Your task to perform on an android device: Go to Maps Image 0: 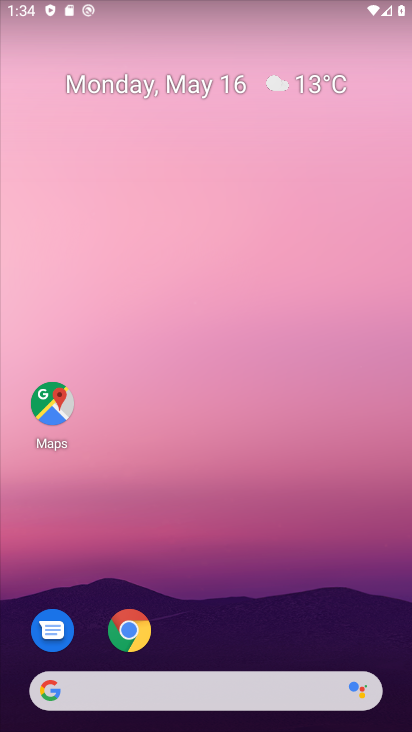
Step 0: click (310, 261)
Your task to perform on an android device: Go to Maps Image 1: 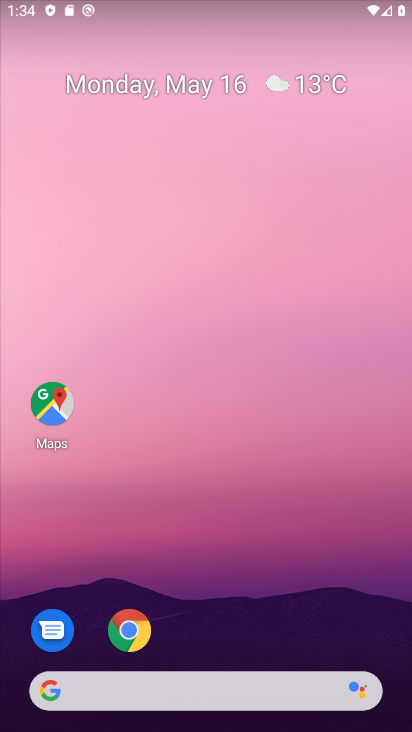
Step 1: click (47, 407)
Your task to perform on an android device: Go to Maps Image 2: 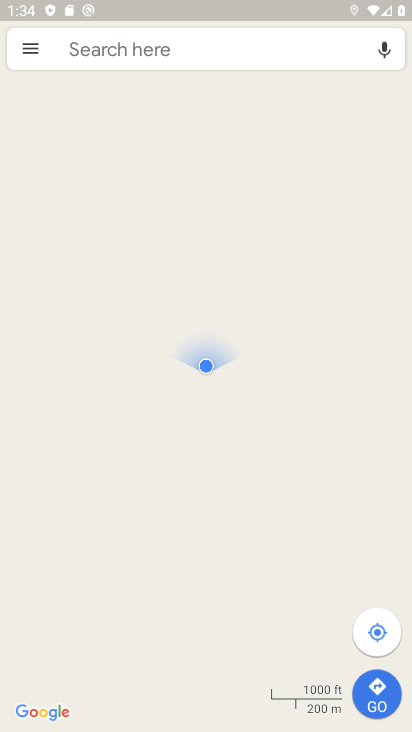
Step 2: task complete